Your task to perform on an android device: allow notifications from all sites in the chrome app Image 0: 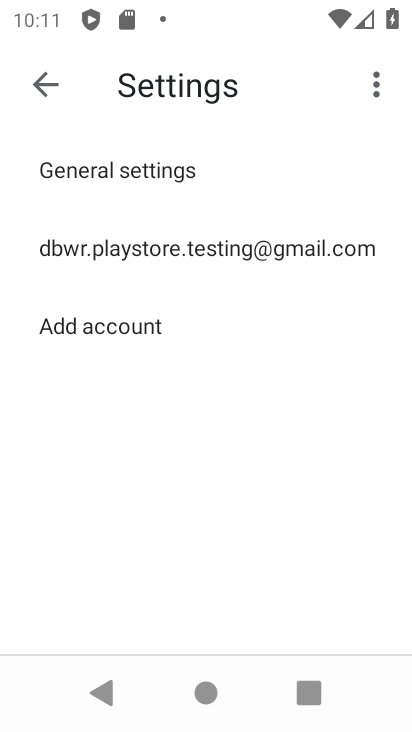
Step 0: click (160, 498)
Your task to perform on an android device: allow notifications from all sites in the chrome app Image 1: 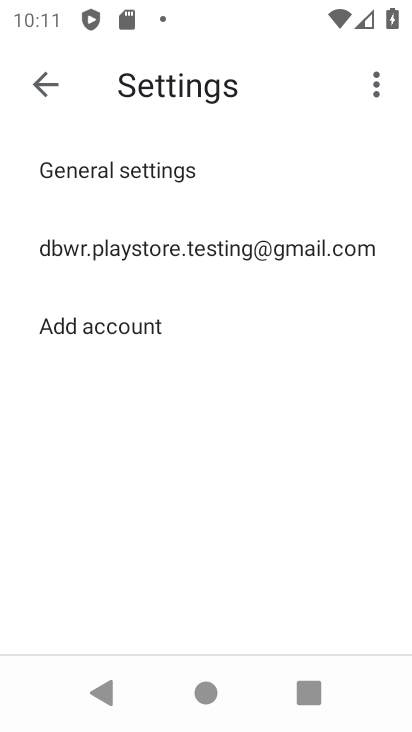
Step 1: click (254, 243)
Your task to perform on an android device: allow notifications from all sites in the chrome app Image 2: 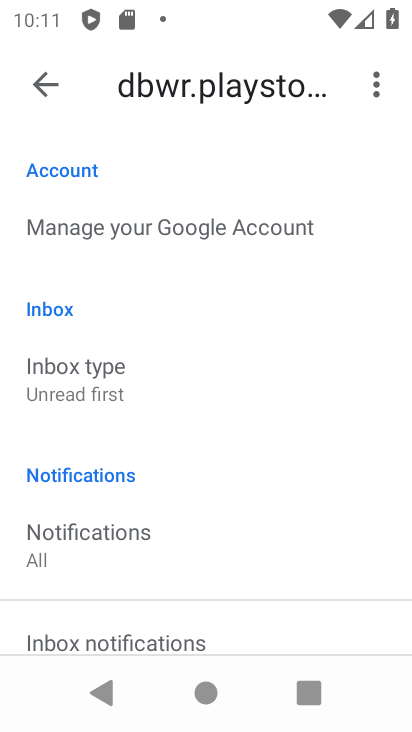
Step 2: press home button
Your task to perform on an android device: allow notifications from all sites in the chrome app Image 3: 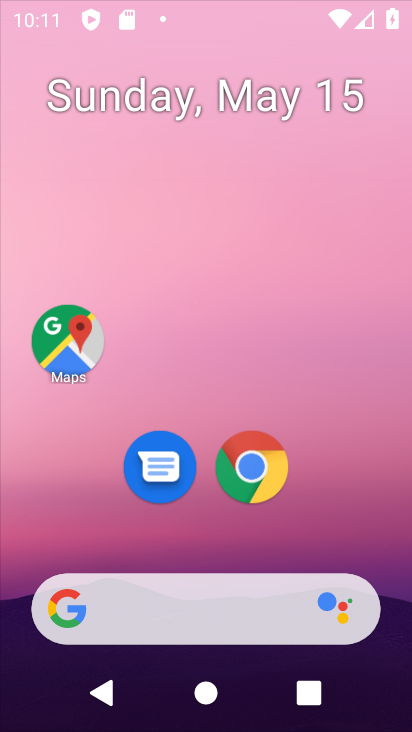
Step 3: drag from (113, 554) to (166, 144)
Your task to perform on an android device: allow notifications from all sites in the chrome app Image 4: 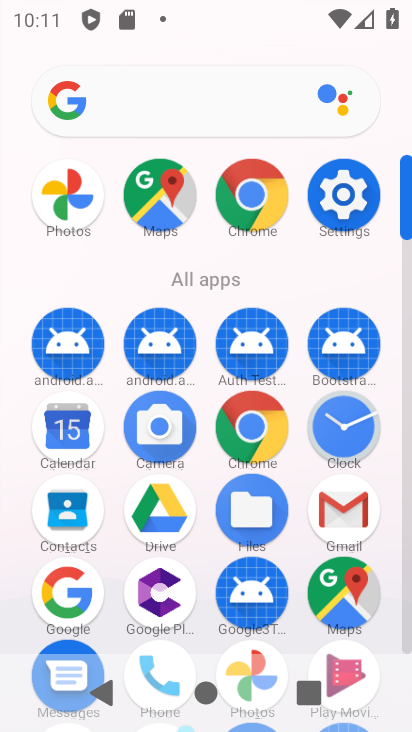
Step 4: click (246, 207)
Your task to perform on an android device: allow notifications from all sites in the chrome app Image 5: 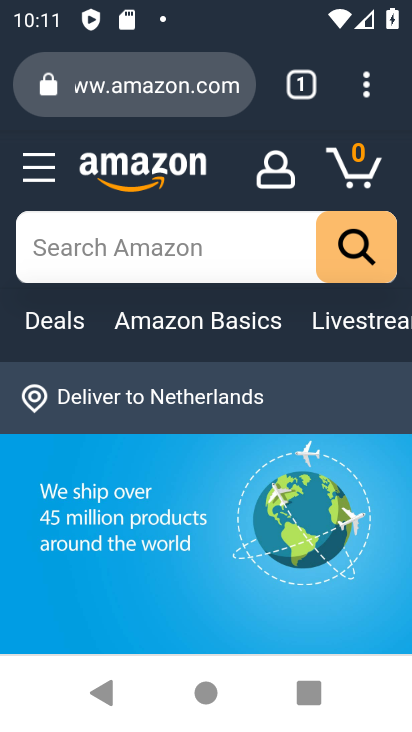
Step 5: drag from (362, 100) to (132, 518)
Your task to perform on an android device: allow notifications from all sites in the chrome app Image 6: 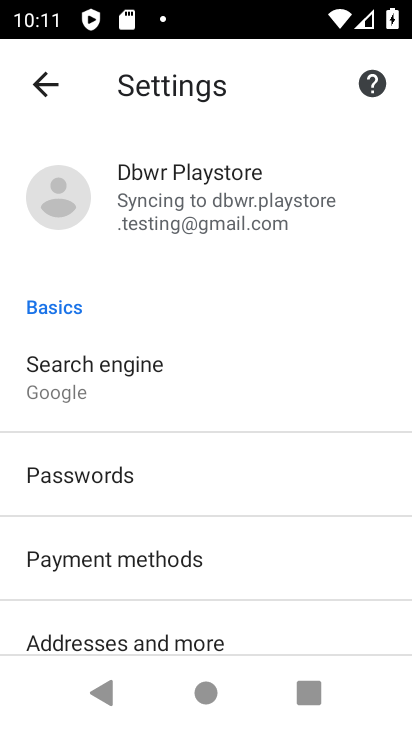
Step 6: click (184, 280)
Your task to perform on an android device: allow notifications from all sites in the chrome app Image 7: 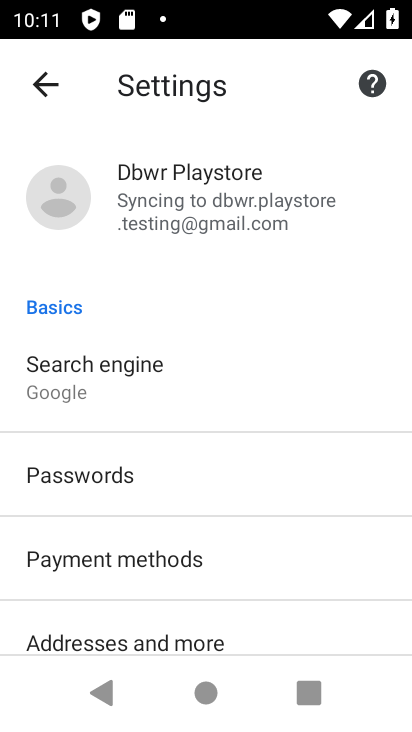
Step 7: drag from (199, 544) to (274, 207)
Your task to perform on an android device: allow notifications from all sites in the chrome app Image 8: 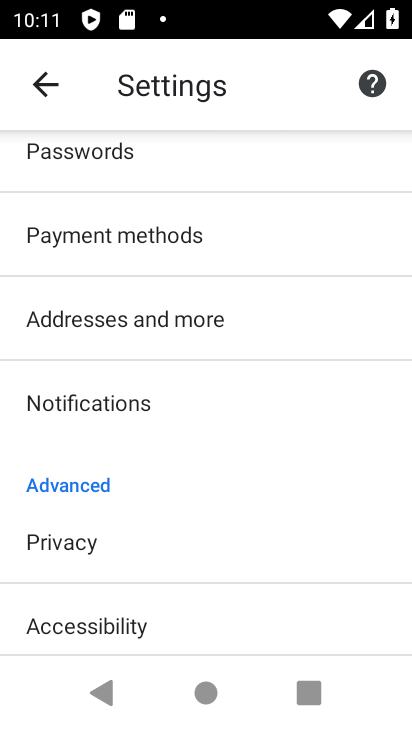
Step 8: click (146, 409)
Your task to perform on an android device: allow notifications from all sites in the chrome app Image 9: 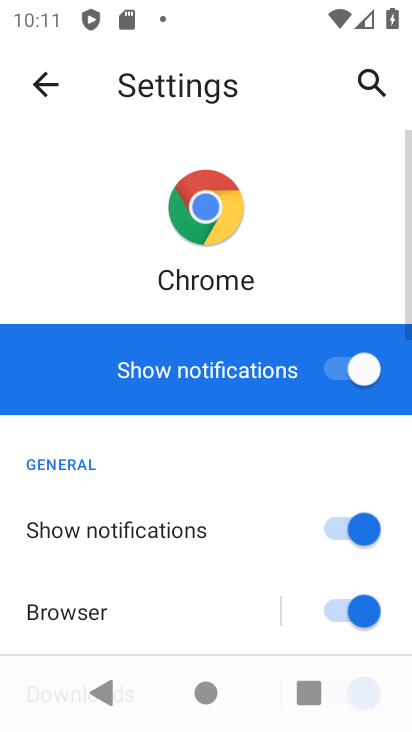
Step 9: drag from (210, 527) to (265, 292)
Your task to perform on an android device: allow notifications from all sites in the chrome app Image 10: 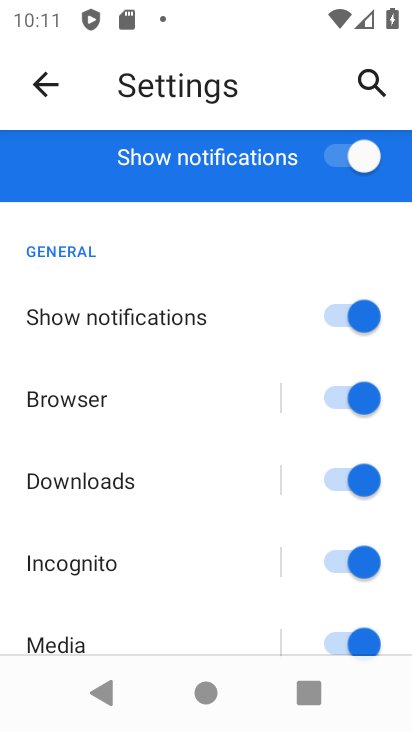
Step 10: drag from (192, 336) to (241, 643)
Your task to perform on an android device: allow notifications from all sites in the chrome app Image 11: 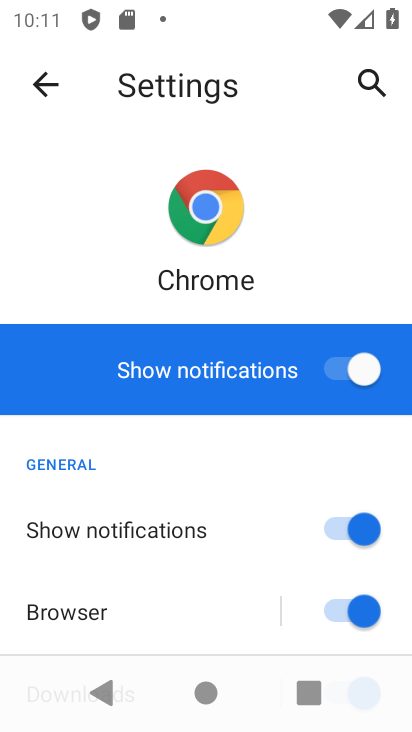
Step 11: click (47, 98)
Your task to perform on an android device: allow notifications from all sites in the chrome app Image 12: 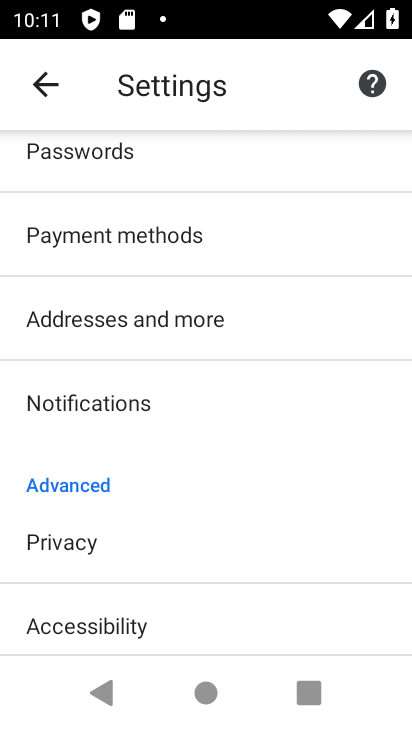
Step 12: drag from (106, 613) to (145, 312)
Your task to perform on an android device: allow notifications from all sites in the chrome app Image 13: 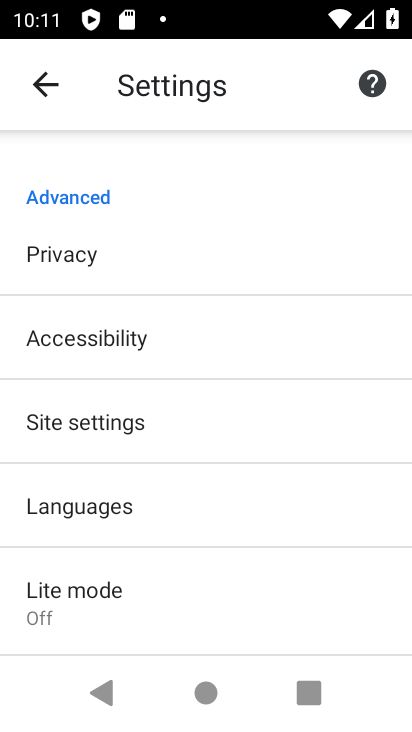
Step 13: click (116, 438)
Your task to perform on an android device: allow notifications from all sites in the chrome app Image 14: 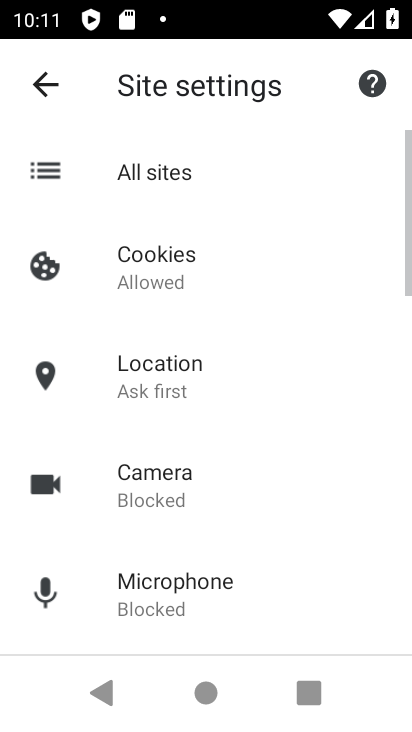
Step 14: drag from (191, 586) to (222, 293)
Your task to perform on an android device: allow notifications from all sites in the chrome app Image 15: 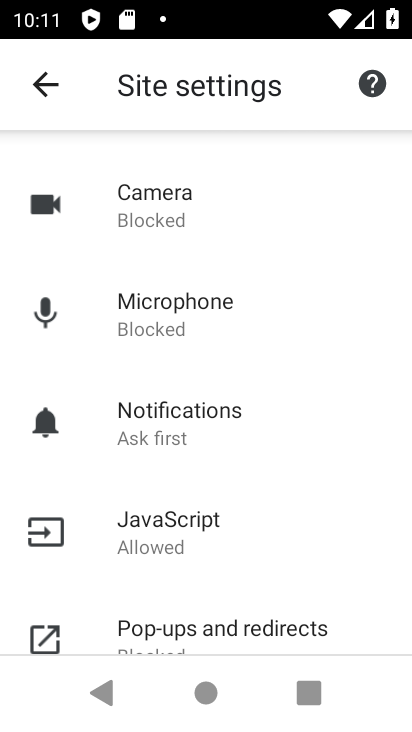
Step 15: click (128, 400)
Your task to perform on an android device: allow notifications from all sites in the chrome app Image 16: 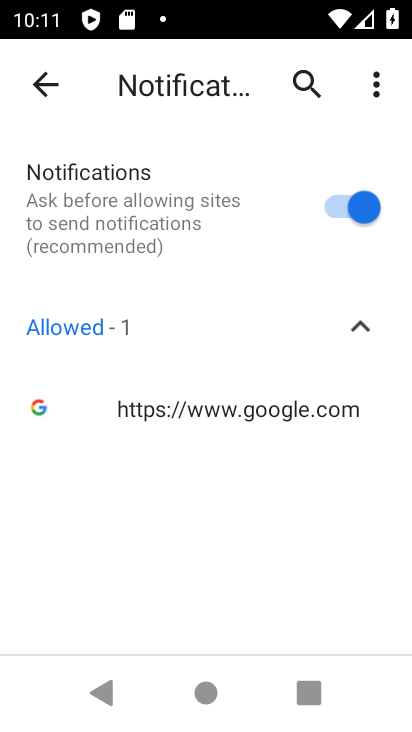
Step 16: task complete